Your task to perform on an android device: Set the phone to "Do not disturb". Image 0: 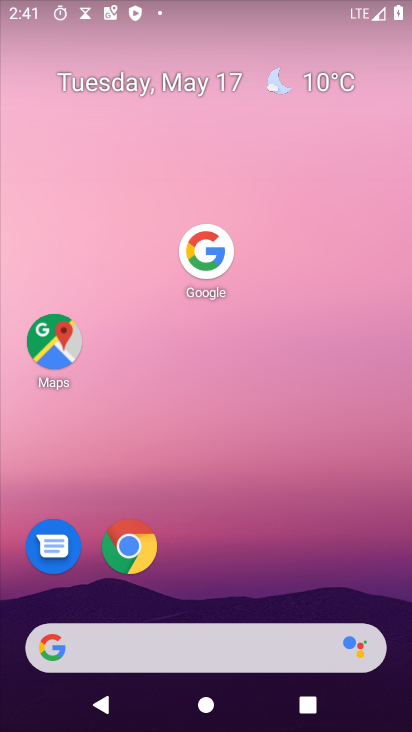
Step 0: press home button
Your task to perform on an android device: Set the phone to "Do not disturb". Image 1: 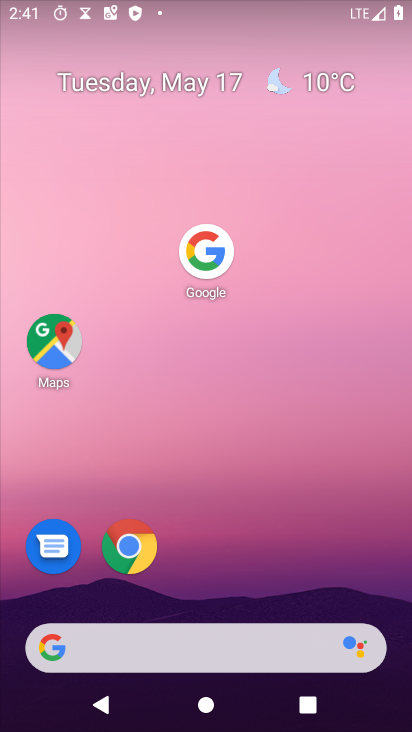
Step 1: drag from (191, 647) to (314, 100)
Your task to perform on an android device: Set the phone to "Do not disturb". Image 2: 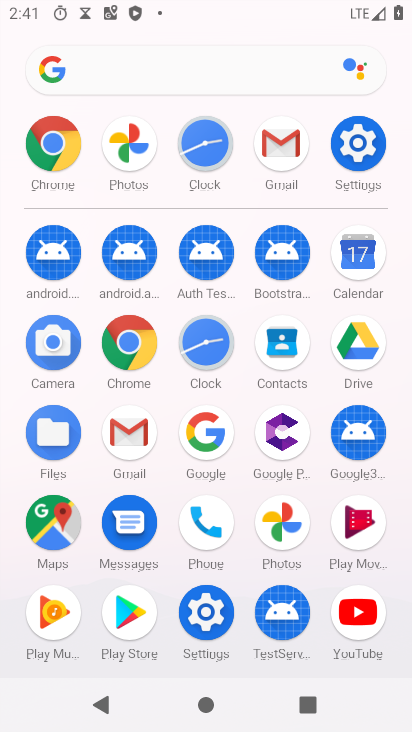
Step 2: click (364, 155)
Your task to perform on an android device: Set the phone to "Do not disturb". Image 3: 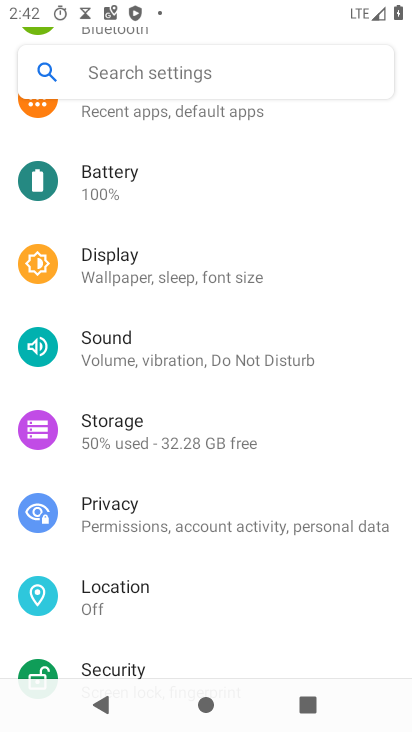
Step 3: click (148, 344)
Your task to perform on an android device: Set the phone to "Do not disturb". Image 4: 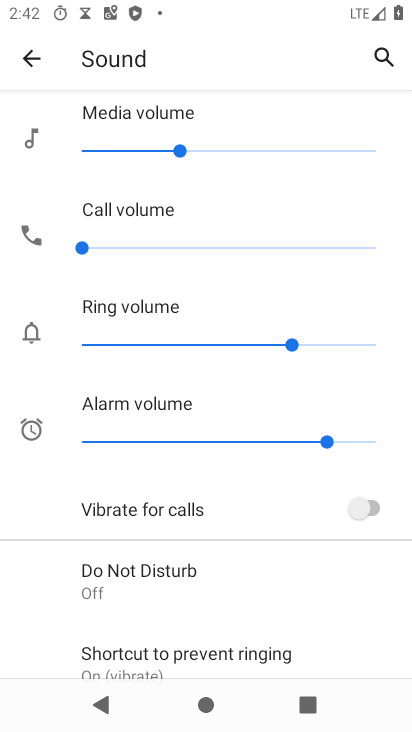
Step 4: click (136, 584)
Your task to perform on an android device: Set the phone to "Do not disturb". Image 5: 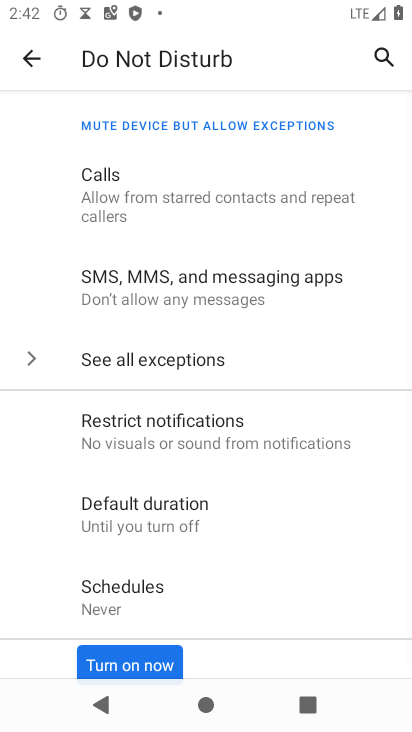
Step 5: click (124, 658)
Your task to perform on an android device: Set the phone to "Do not disturb". Image 6: 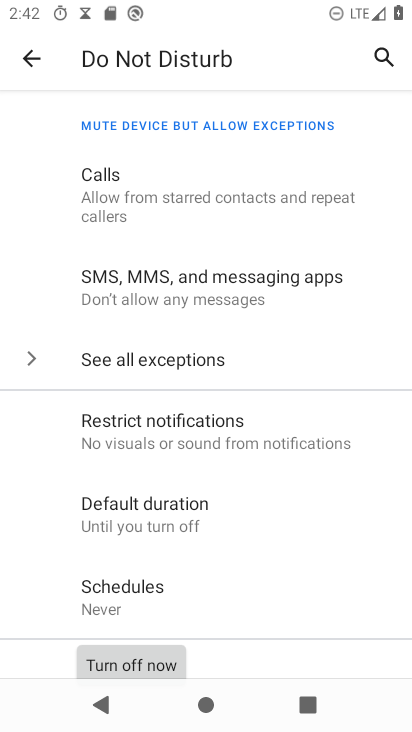
Step 6: task complete